Your task to perform on an android device: Go to network settings Image 0: 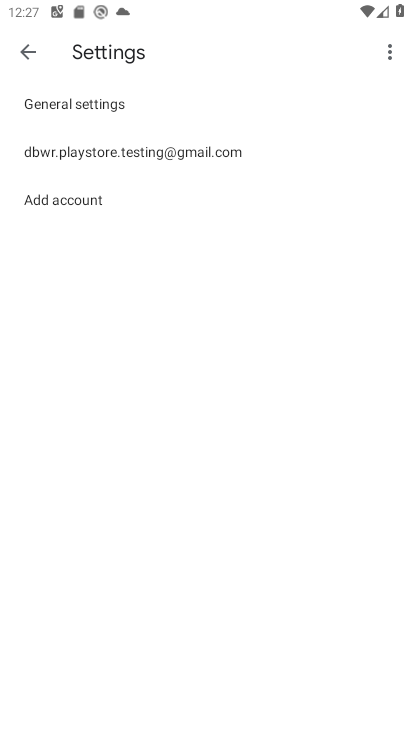
Step 0: press home button
Your task to perform on an android device: Go to network settings Image 1: 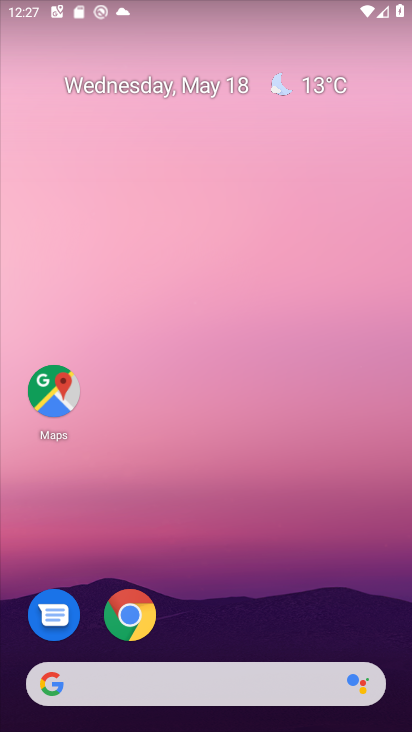
Step 1: drag from (368, 536) to (361, 396)
Your task to perform on an android device: Go to network settings Image 2: 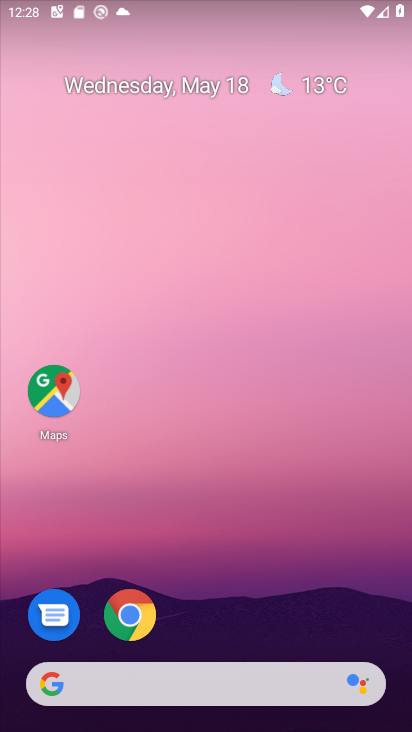
Step 2: drag from (393, 700) to (341, 323)
Your task to perform on an android device: Go to network settings Image 3: 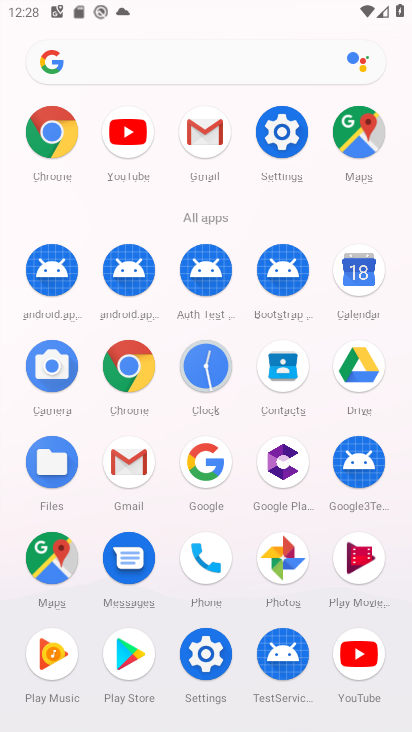
Step 3: click (274, 136)
Your task to perform on an android device: Go to network settings Image 4: 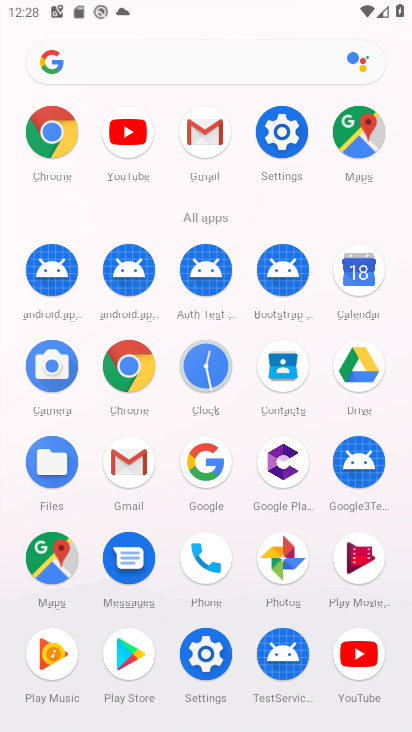
Step 4: click (209, 657)
Your task to perform on an android device: Go to network settings Image 5: 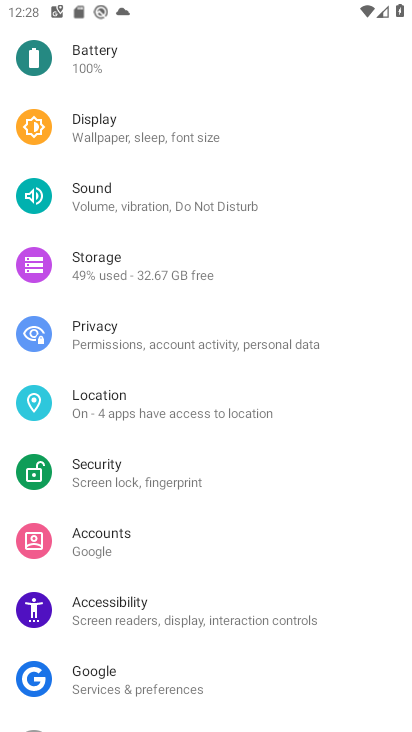
Step 5: drag from (334, 159) to (356, 485)
Your task to perform on an android device: Go to network settings Image 6: 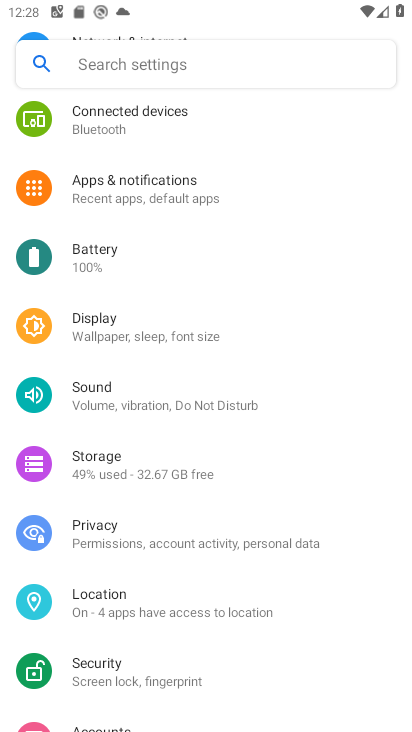
Step 6: drag from (363, 130) to (374, 505)
Your task to perform on an android device: Go to network settings Image 7: 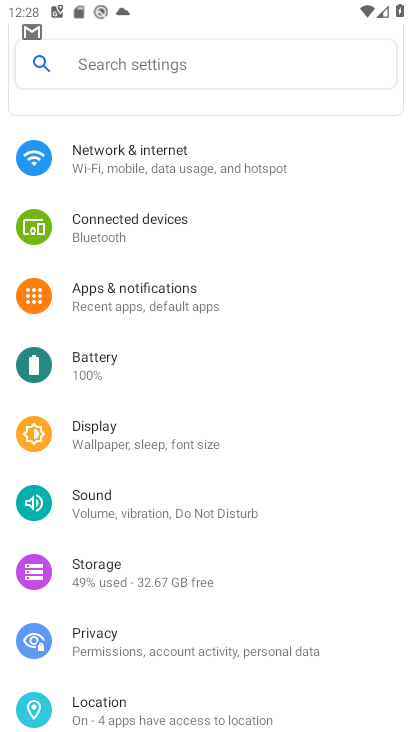
Step 7: click (166, 147)
Your task to perform on an android device: Go to network settings Image 8: 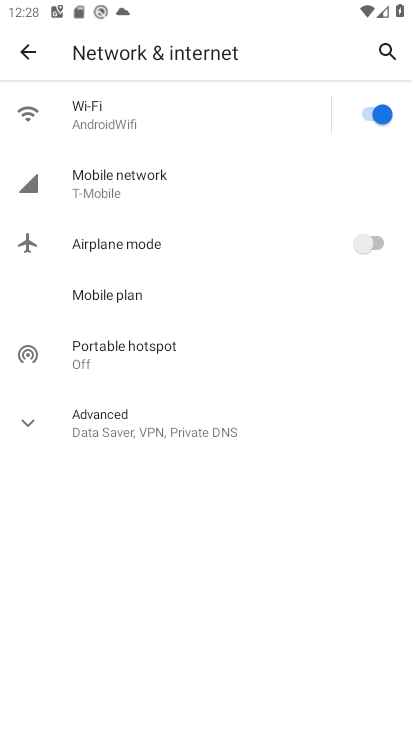
Step 8: click (111, 178)
Your task to perform on an android device: Go to network settings Image 9: 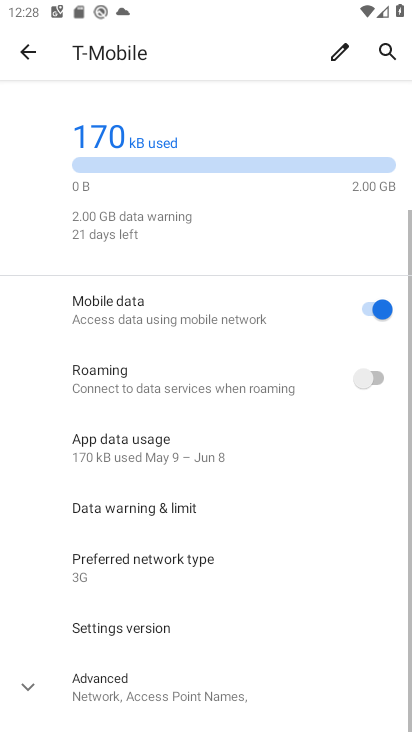
Step 9: task complete